Your task to perform on an android device: Open Google Maps and go to "Timeline" Image 0: 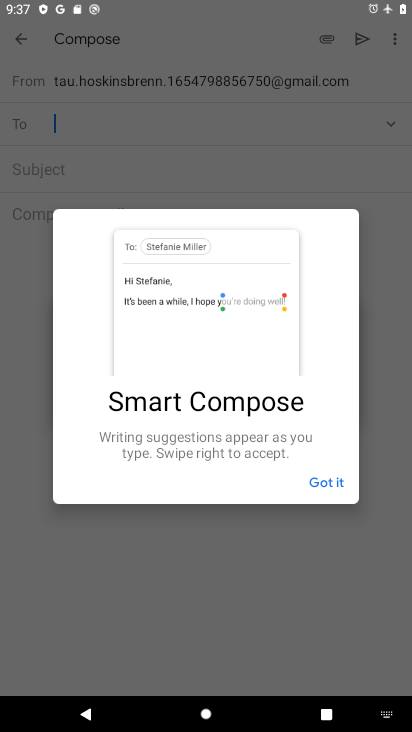
Step 0: press home button
Your task to perform on an android device: Open Google Maps and go to "Timeline" Image 1: 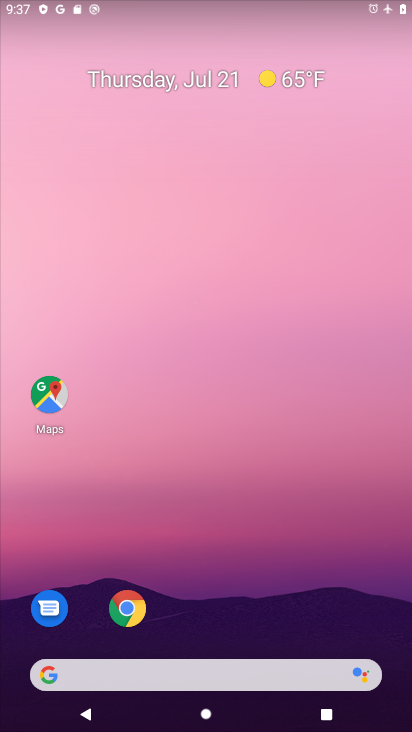
Step 1: click (58, 406)
Your task to perform on an android device: Open Google Maps and go to "Timeline" Image 2: 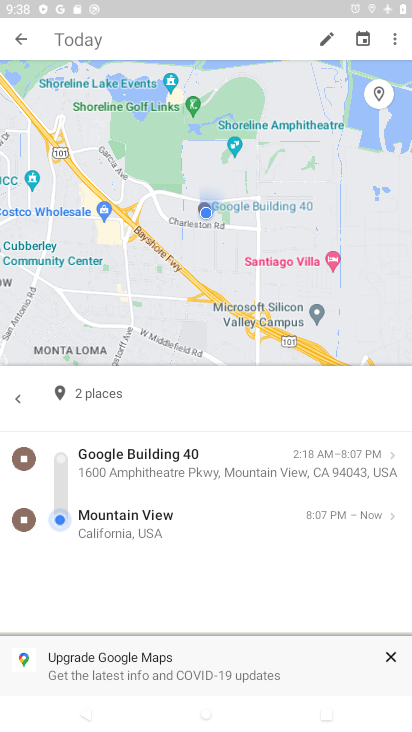
Step 2: click (12, 39)
Your task to perform on an android device: Open Google Maps and go to "Timeline" Image 3: 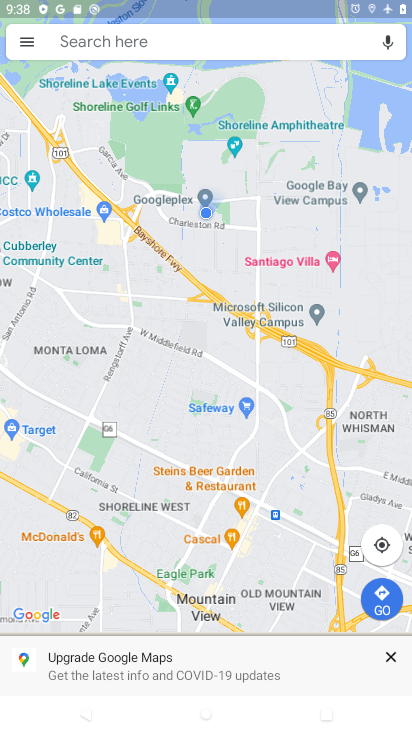
Step 3: click (23, 34)
Your task to perform on an android device: Open Google Maps and go to "Timeline" Image 4: 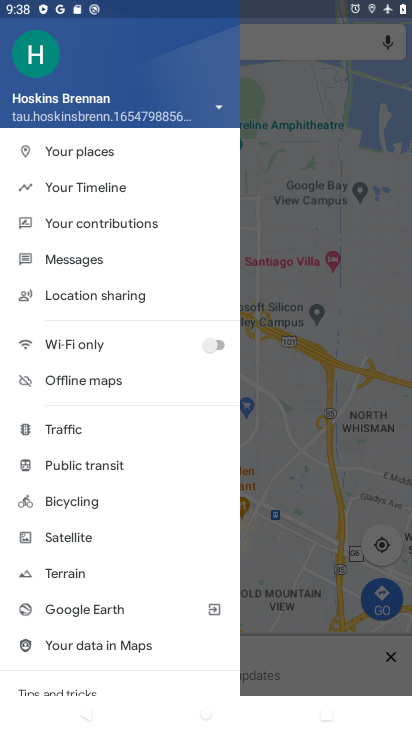
Step 4: click (81, 192)
Your task to perform on an android device: Open Google Maps and go to "Timeline" Image 5: 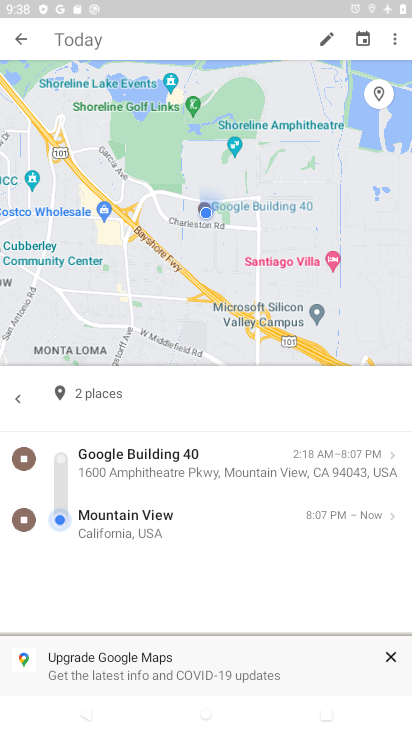
Step 5: task complete